Your task to perform on an android device: turn on sleep mode Image 0: 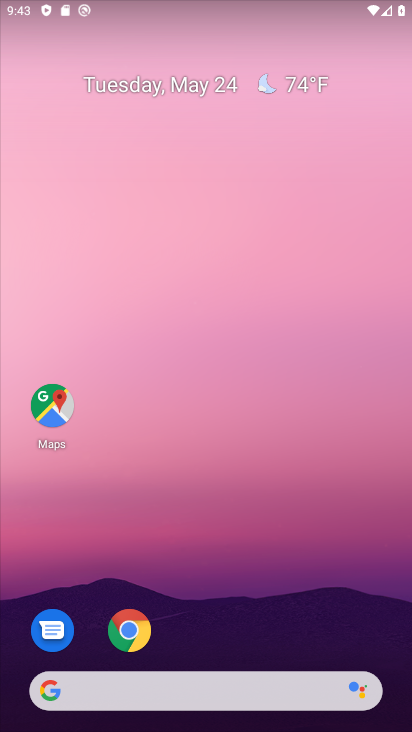
Step 0: drag from (246, 616) to (288, 13)
Your task to perform on an android device: turn on sleep mode Image 1: 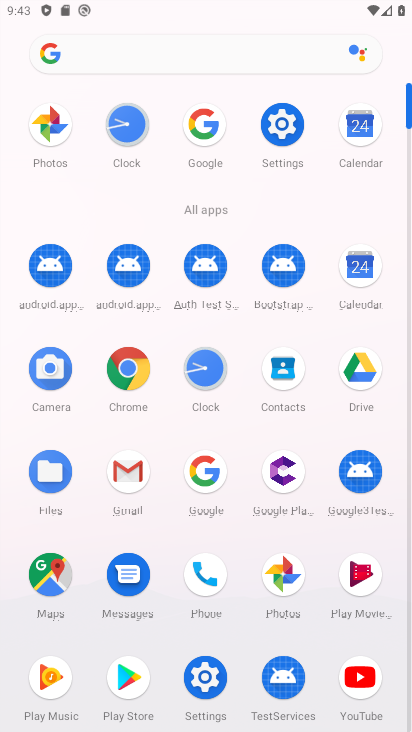
Step 1: click (288, 138)
Your task to perform on an android device: turn on sleep mode Image 2: 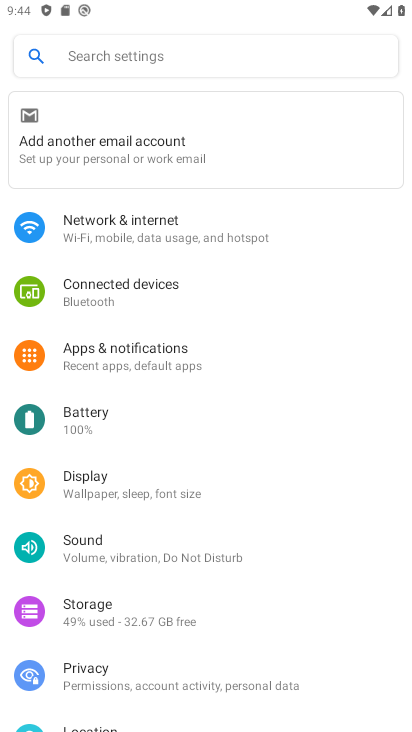
Step 2: drag from (119, 598) to (115, 336)
Your task to perform on an android device: turn on sleep mode Image 3: 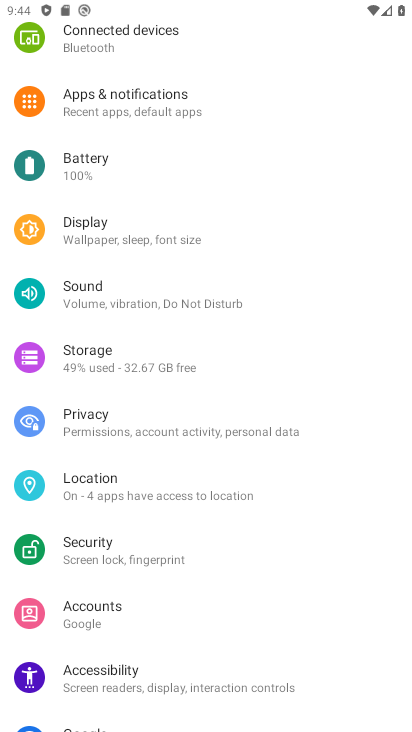
Step 3: drag from (153, 559) to (168, 686)
Your task to perform on an android device: turn on sleep mode Image 4: 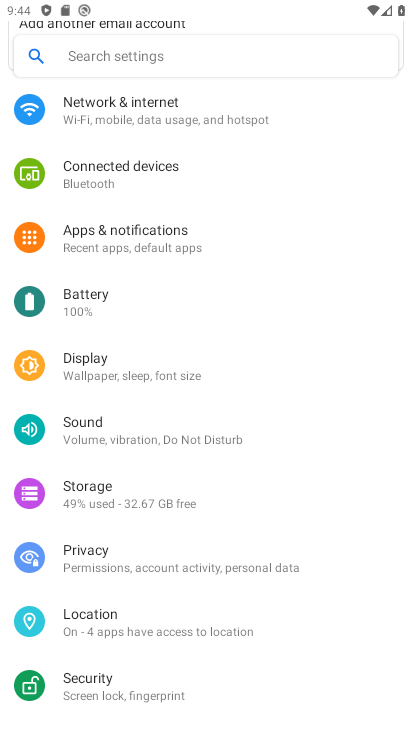
Step 4: click (104, 383)
Your task to perform on an android device: turn on sleep mode Image 5: 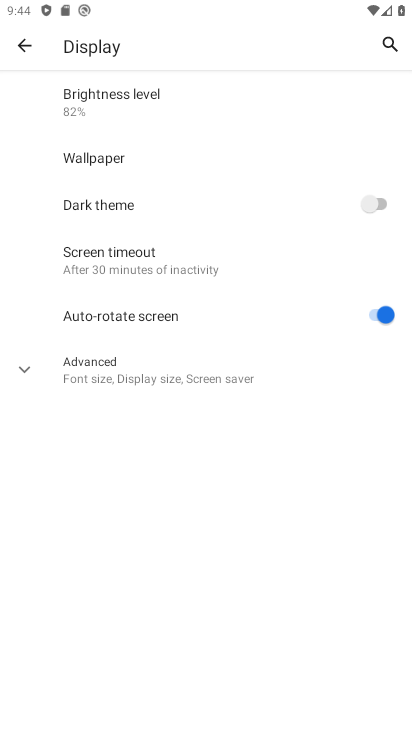
Step 5: task complete